Your task to perform on an android device: set the timer Image 0: 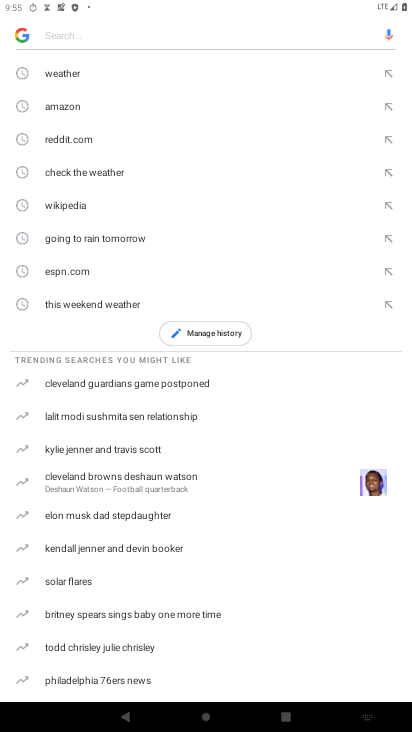
Step 0: press home button
Your task to perform on an android device: set the timer Image 1: 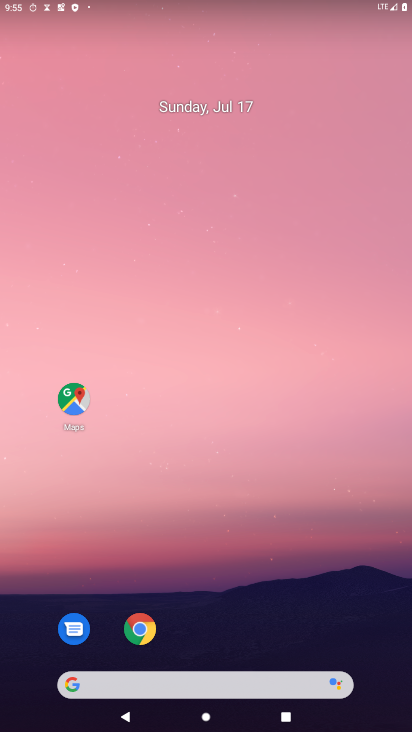
Step 1: drag from (233, 729) to (267, 91)
Your task to perform on an android device: set the timer Image 2: 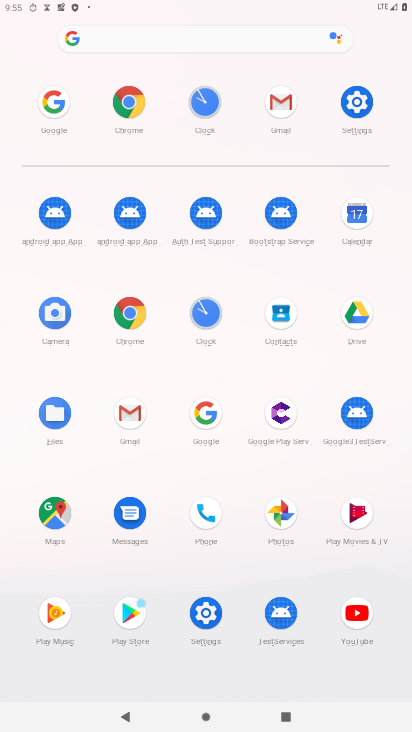
Step 2: click (206, 321)
Your task to perform on an android device: set the timer Image 3: 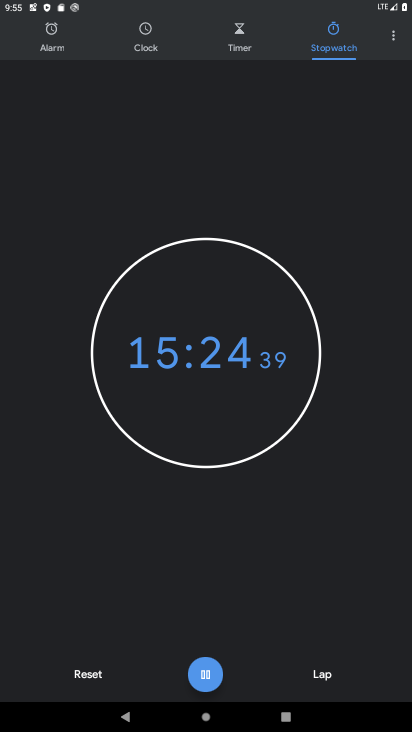
Step 3: click (234, 28)
Your task to perform on an android device: set the timer Image 4: 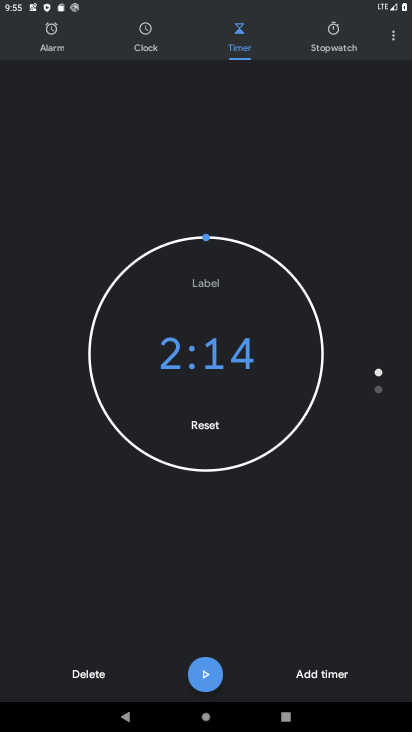
Step 4: task complete